Your task to perform on an android device: Clear the cart on bestbuy.com. Add dell xps to the cart on bestbuy.com, then select checkout. Image 0: 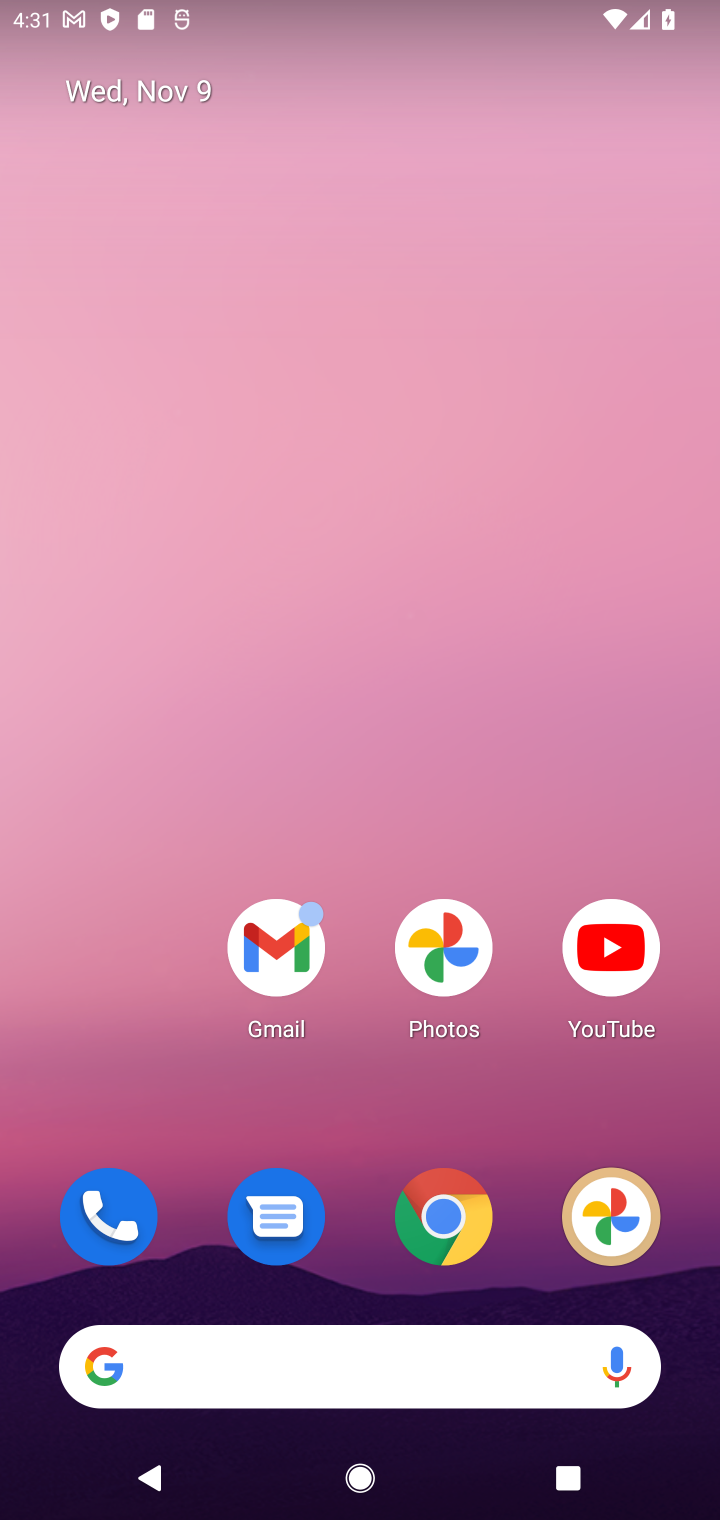
Step 0: drag from (367, 1131) to (500, 176)
Your task to perform on an android device: Clear the cart on bestbuy.com. Add dell xps to the cart on bestbuy.com, then select checkout. Image 1: 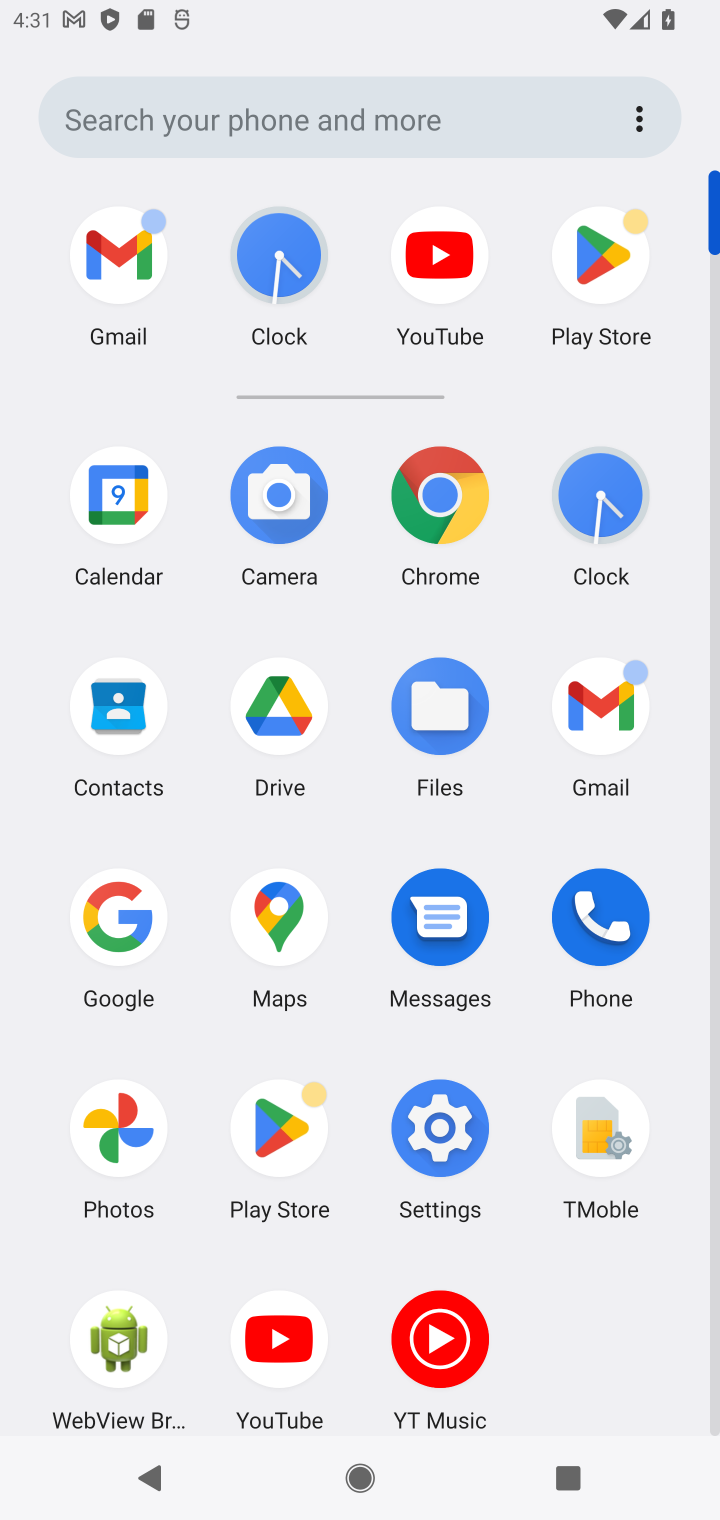
Step 1: click (443, 484)
Your task to perform on an android device: Clear the cart on bestbuy.com. Add dell xps to the cart on bestbuy.com, then select checkout. Image 2: 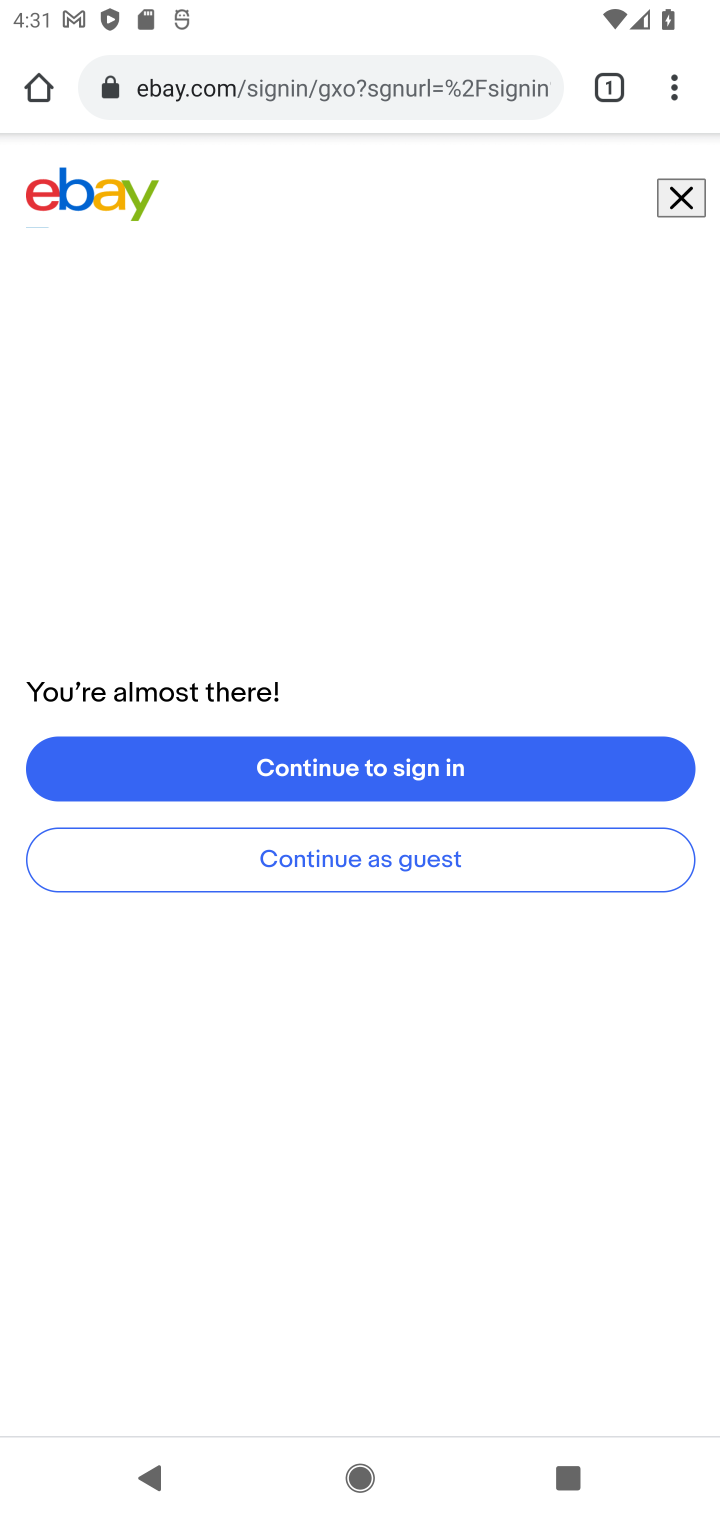
Step 2: click (367, 98)
Your task to perform on an android device: Clear the cart on bestbuy.com. Add dell xps to the cart on bestbuy.com, then select checkout. Image 3: 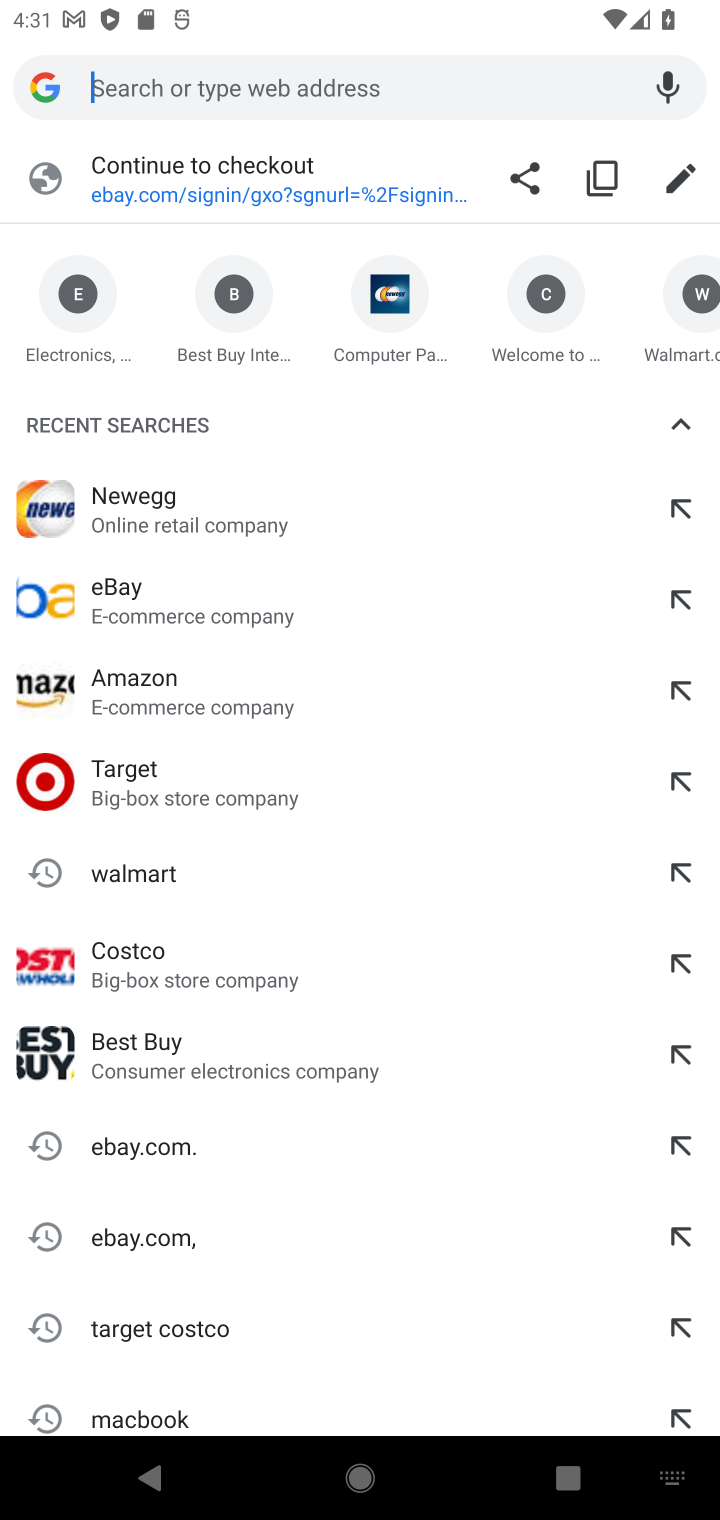
Step 3: type "bestbuy.com"
Your task to perform on an android device: Clear the cart on bestbuy.com. Add dell xps to the cart on bestbuy.com, then select checkout. Image 4: 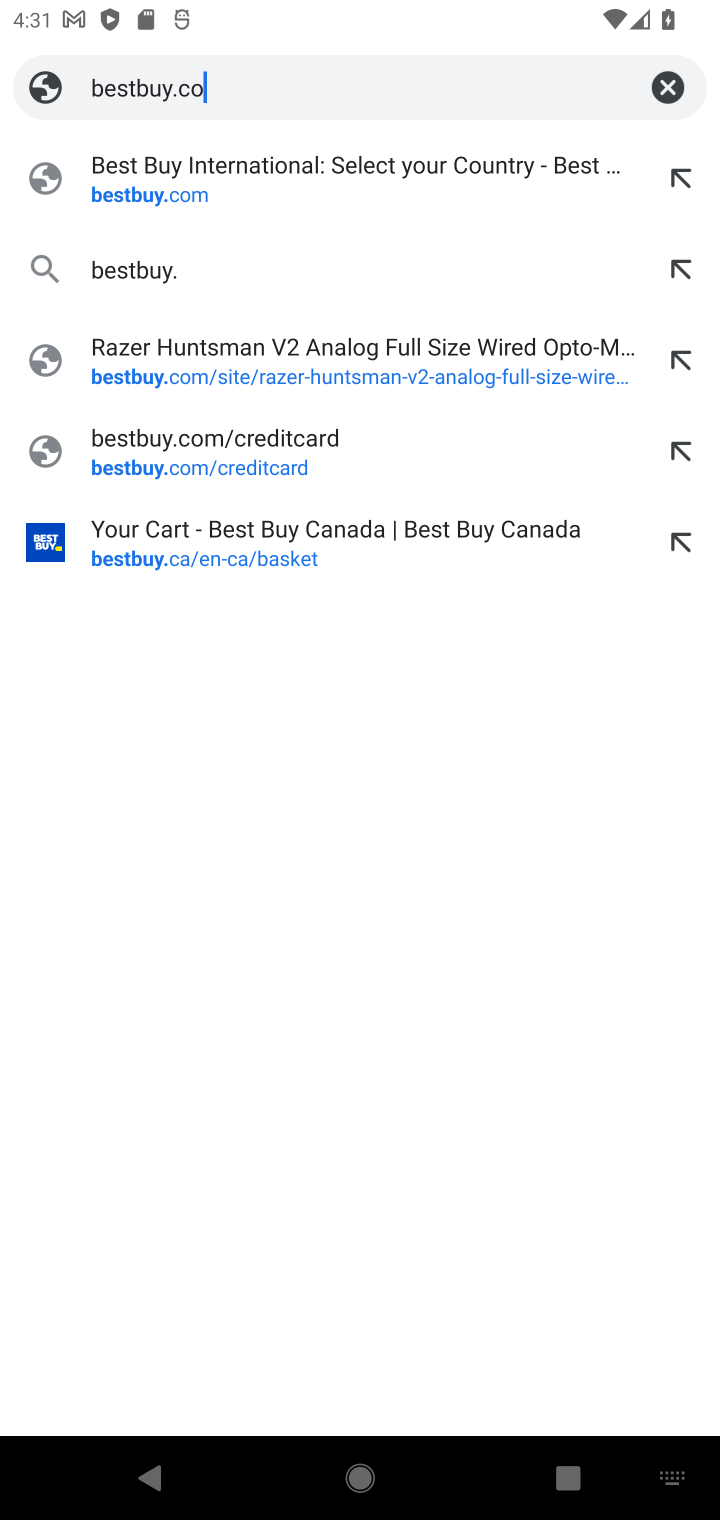
Step 4: press enter
Your task to perform on an android device: Clear the cart on bestbuy.com. Add dell xps to the cart on bestbuy.com, then select checkout. Image 5: 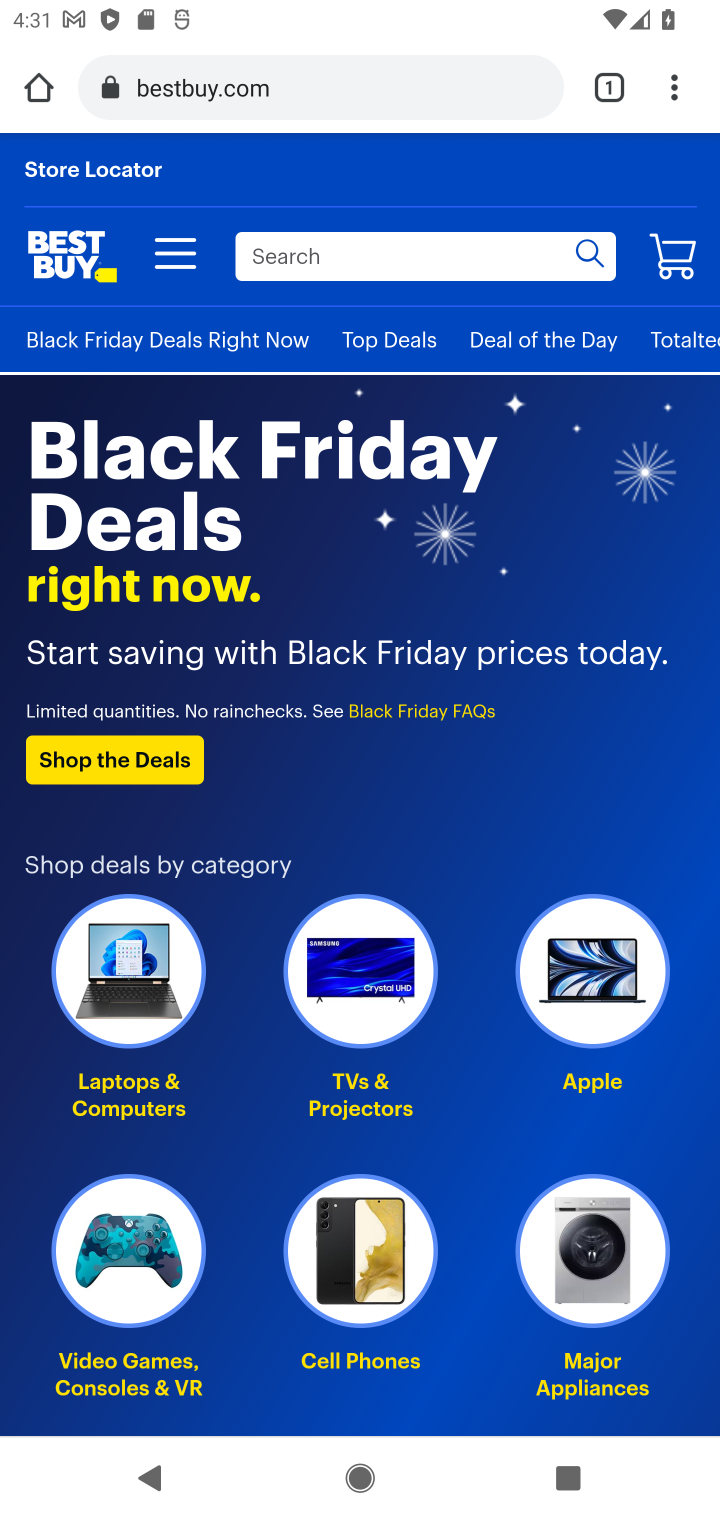
Step 5: click (393, 255)
Your task to perform on an android device: Clear the cart on bestbuy.com. Add dell xps to the cart on bestbuy.com, then select checkout. Image 6: 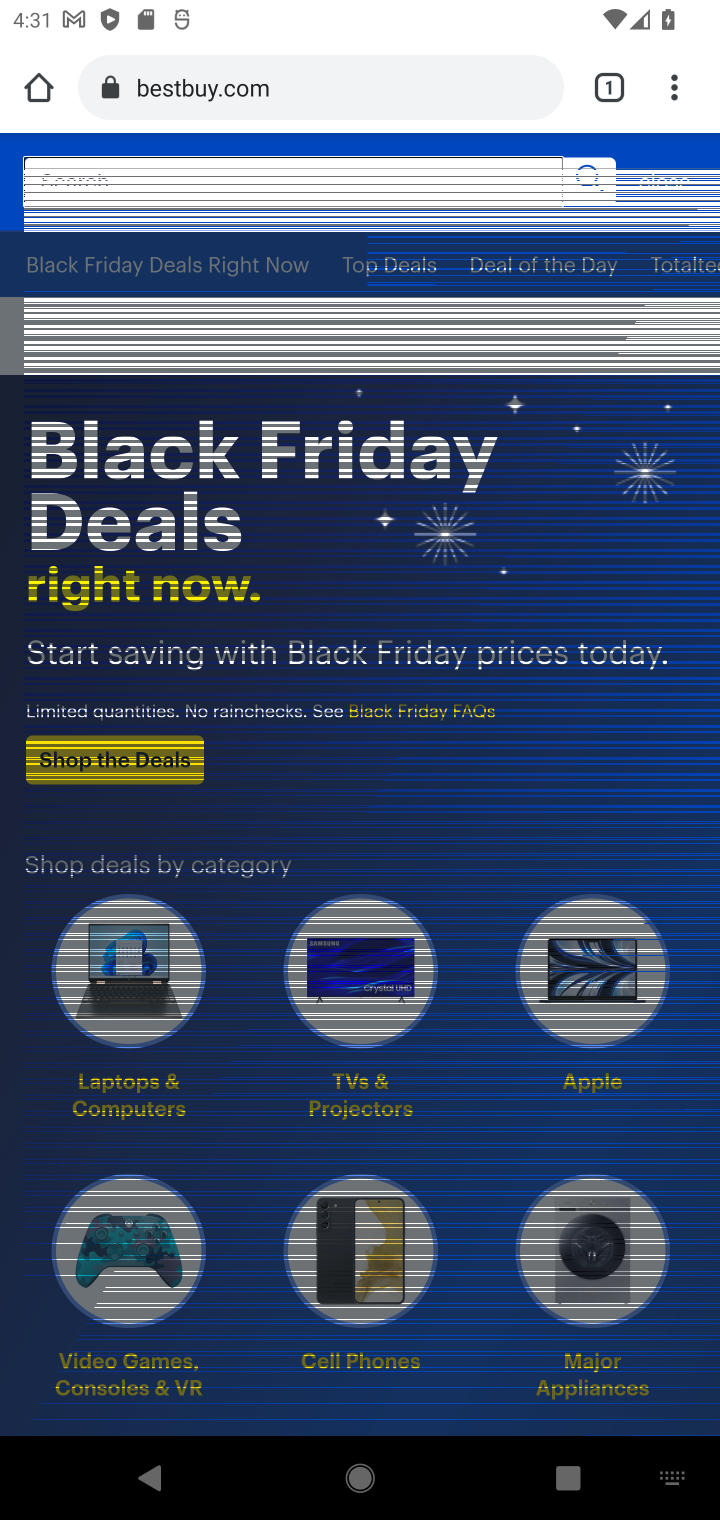
Step 6: click (653, 171)
Your task to perform on an android device: Clear the cart on bestbuy.com. Add dell xps to the cart on bestbuy.com, then select checkout. Image 7: 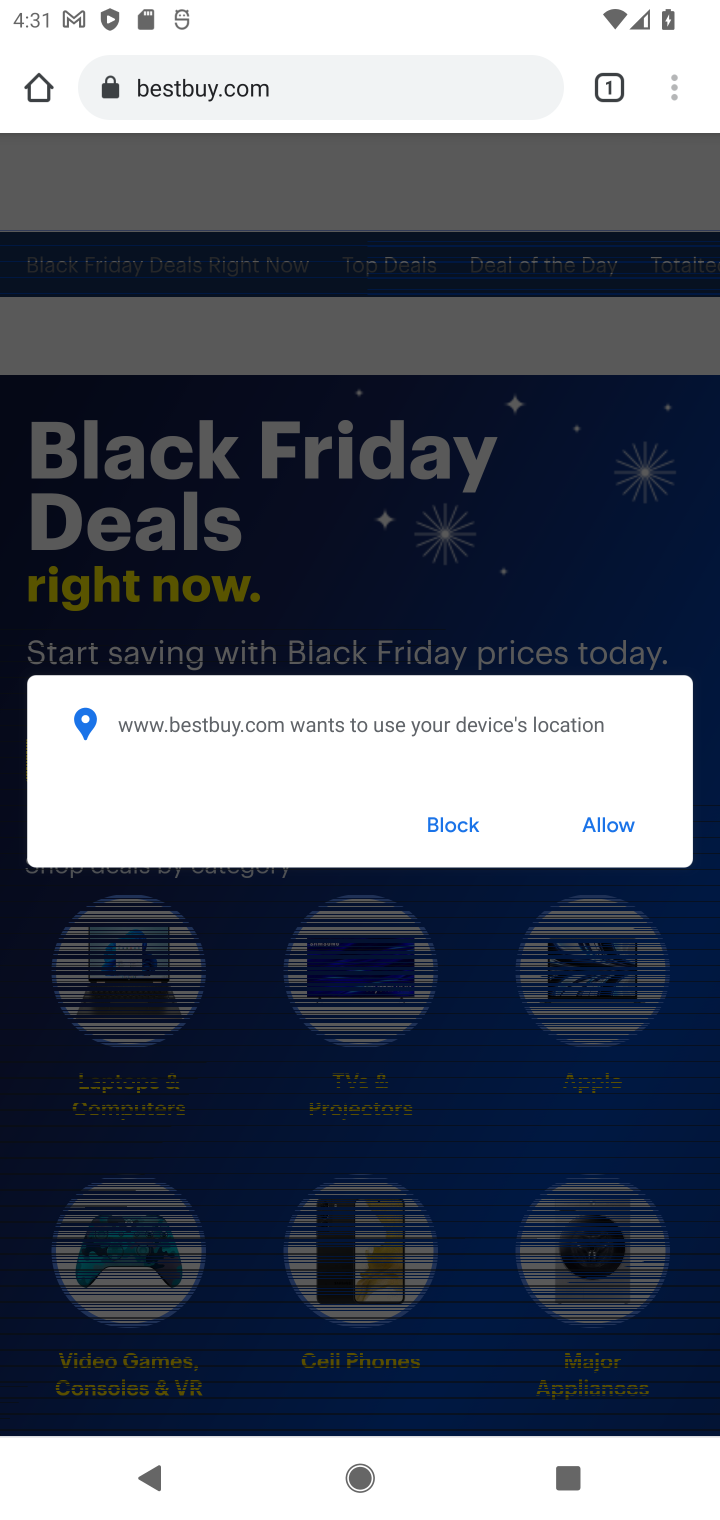
Step 7: click (474, 824)
Your task to perform on an android device: Clear the cart on bestbuy.com. Add dell xps to the cart on bestbuy.com, then select checkout. Image 8: 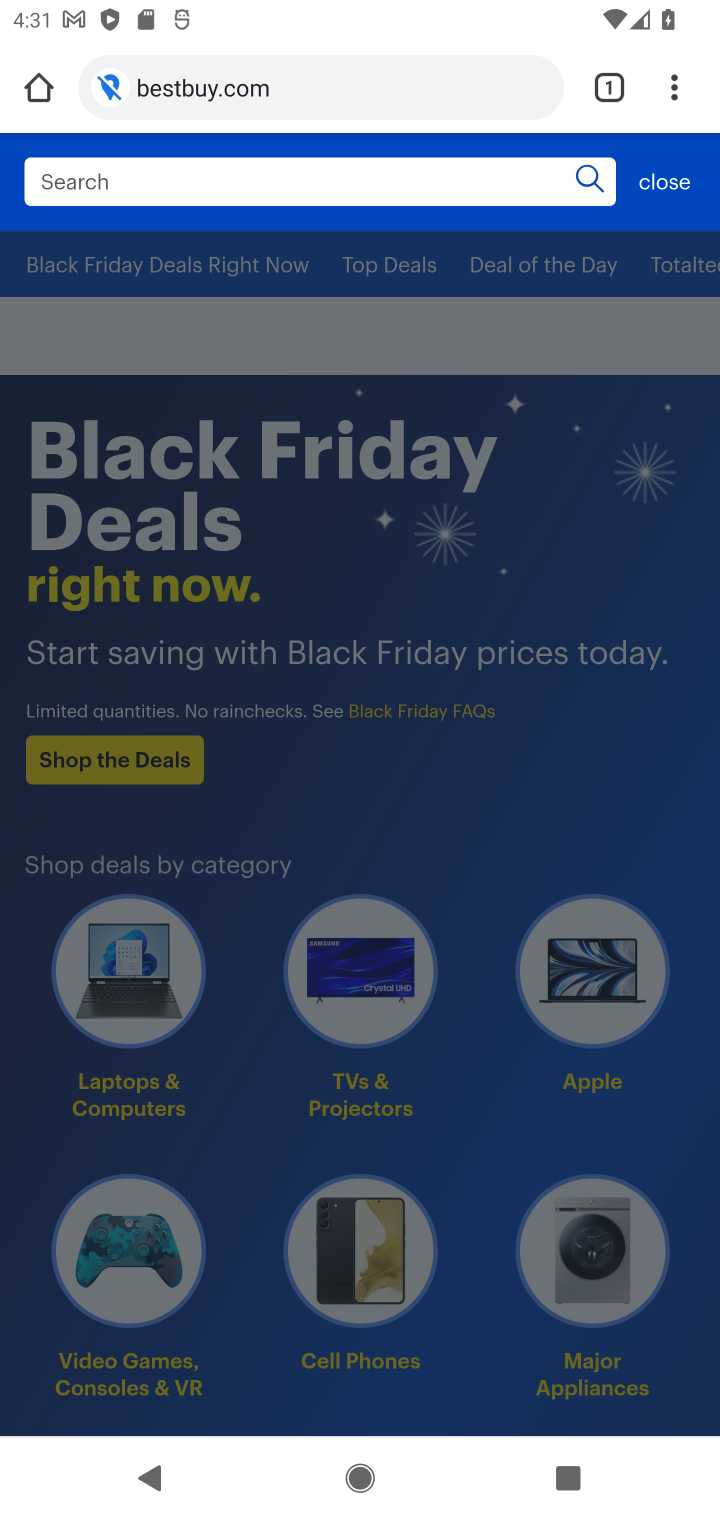
Step 8: click (677, 182)
Your task to perform on an android device: Clear the cart on bestbuy.com. Add dell xps to the cart on bestbuy.com, then select checkout. Image 9: 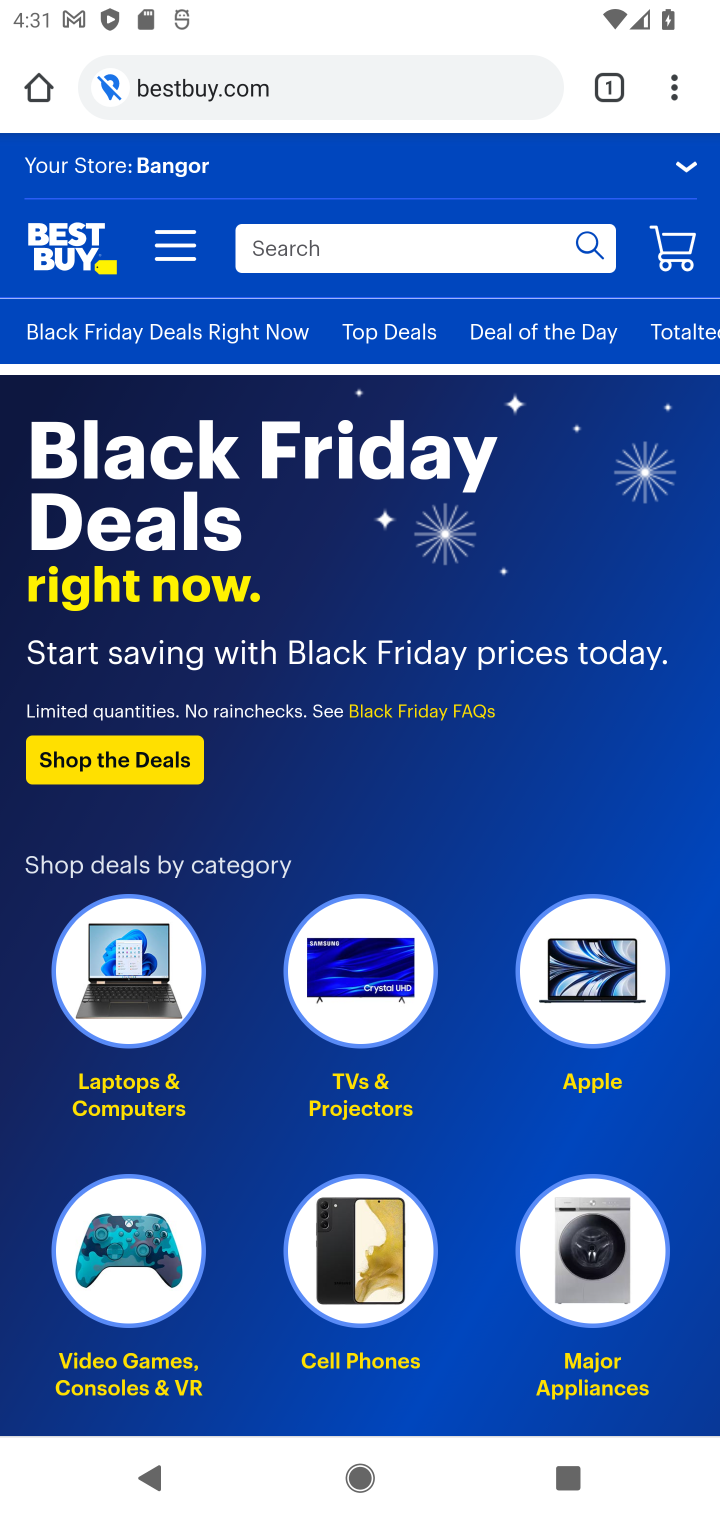
Step 9: click (680, 251)
Your task to perform on an android device: Clear the cart on bestbuy.com. Add dell xps to the cart on bestbuy.com, then select checkout. Image 10: 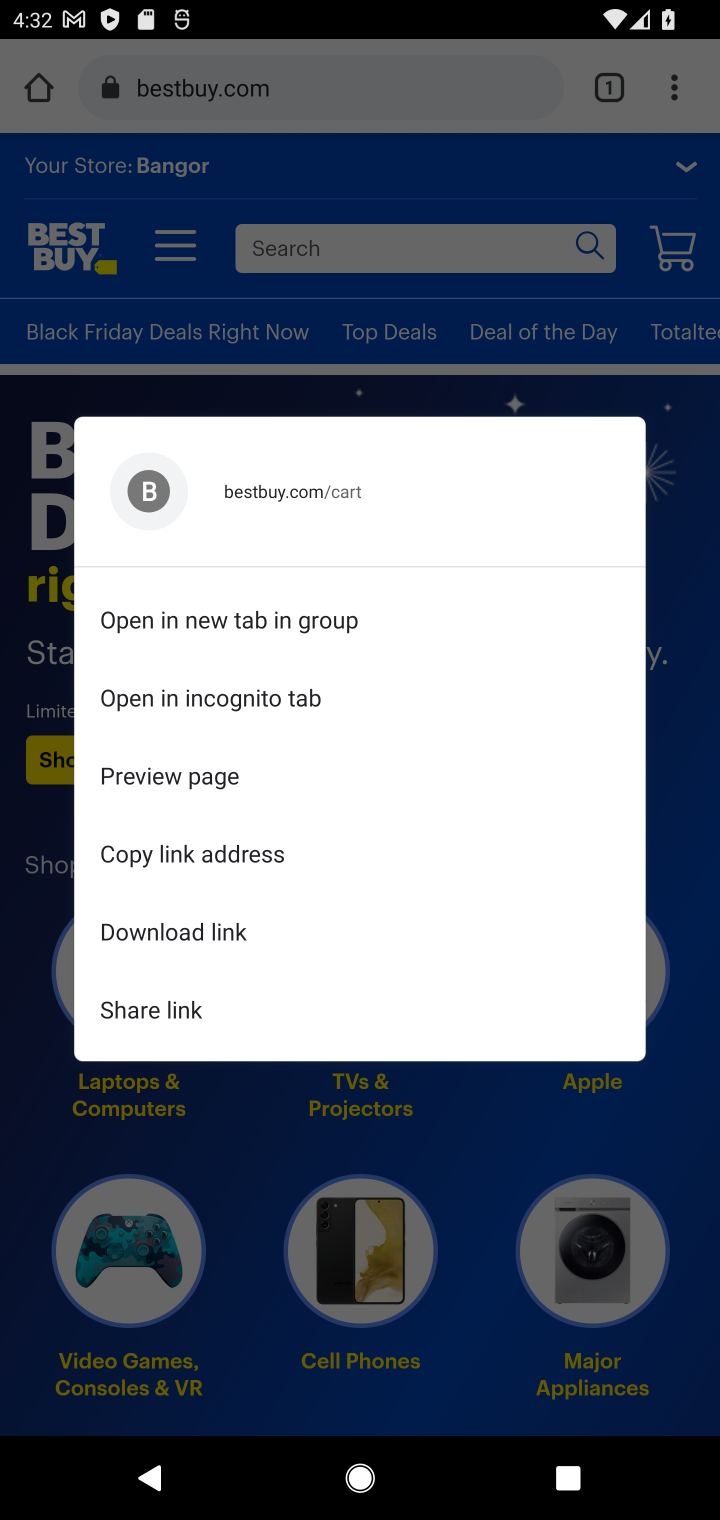
Step 10: click (680, 251)
Your task to perform on an android device: Clear the cart on bestbuy.com. Add dell xps to the cart on bestbuy.com, then select checkout. Image 11: 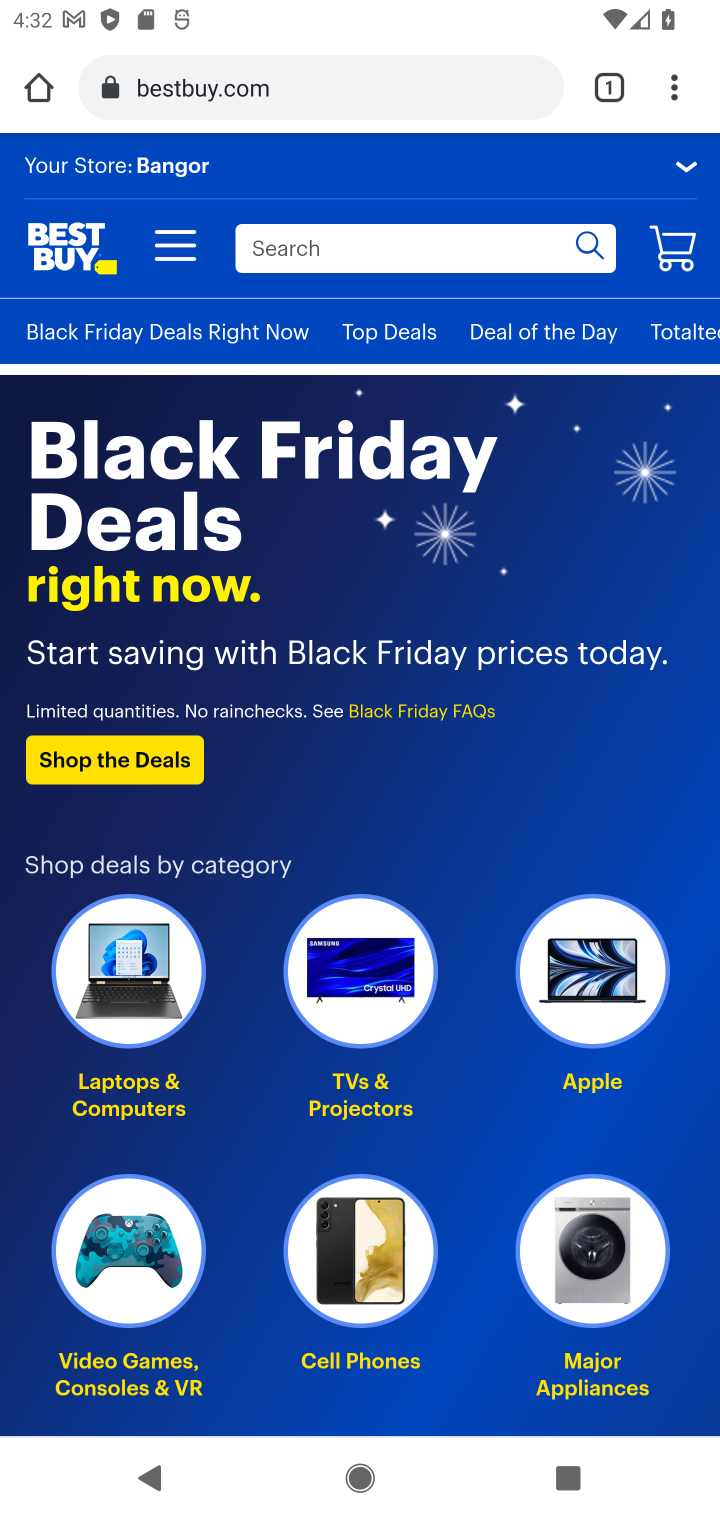
Step 11: click (680, 251)
Your task to perform on an android device: Clear the cart on bestbuy.com. Add dell xps to the cart on bestbuy.com, then select checkout. Image 12: 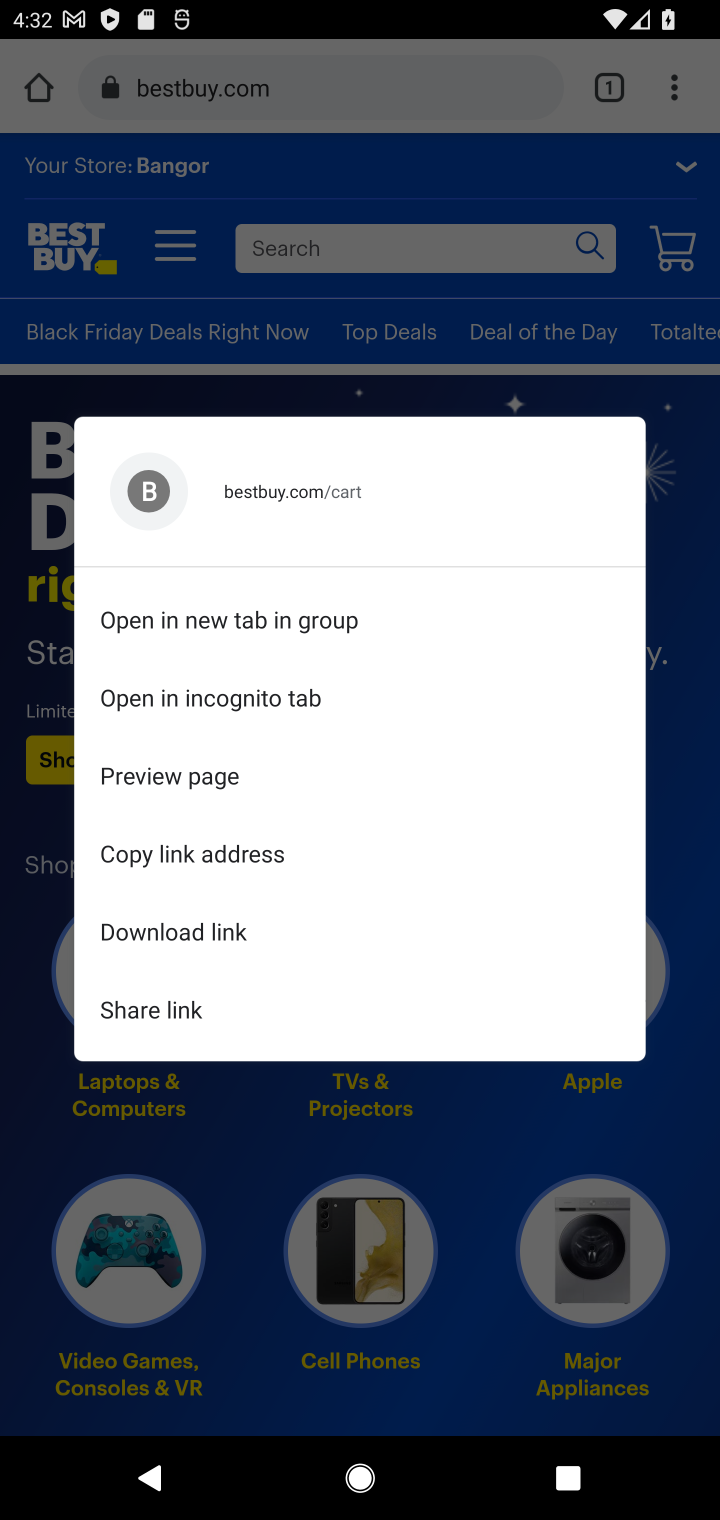
Step 12: click (680, 251)
Your task to perform on an android device: Clear the cart on bestbuy.com. Add dell xps to the cart on bestbuy.com, then select checkout. Image 13: 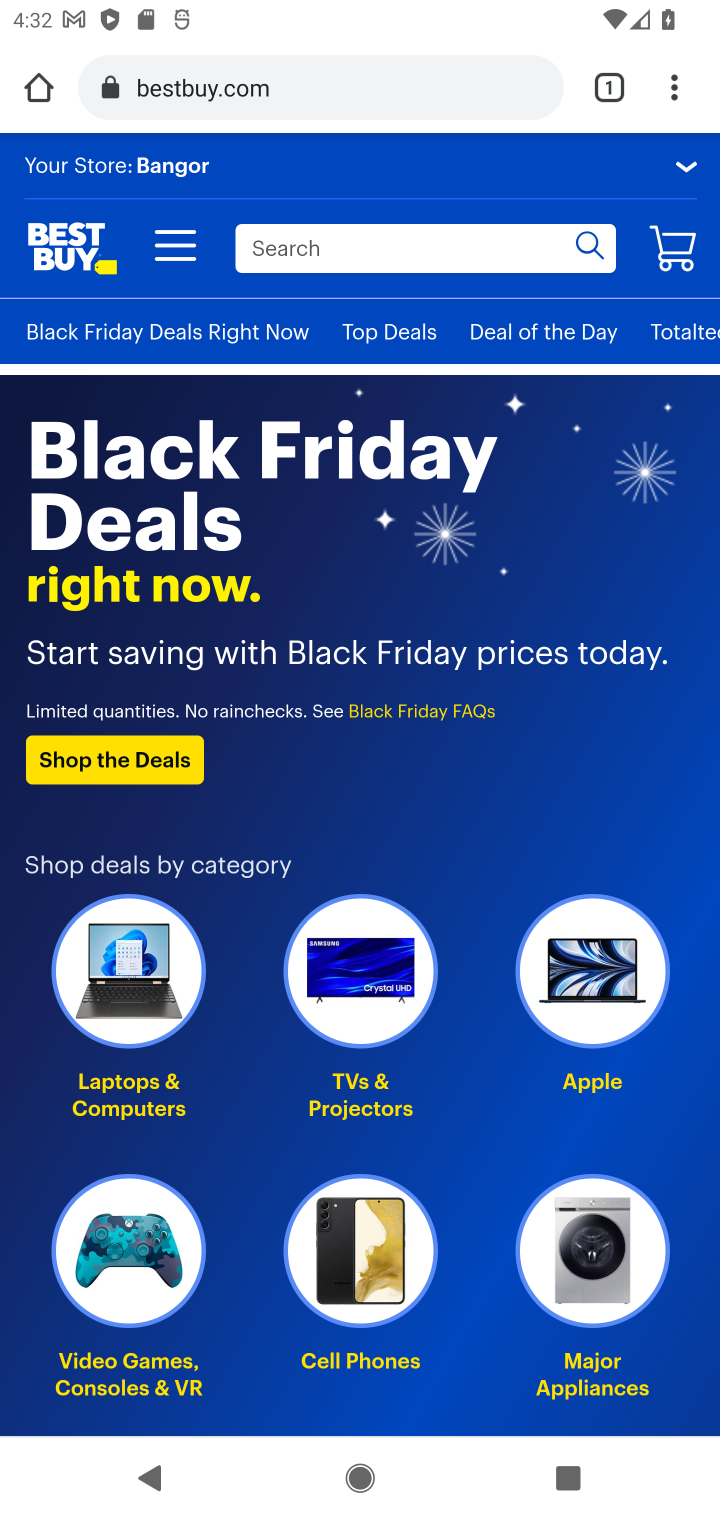
Step 13: click (682, 273)
Your task to perform on an android device: Clear the cart on bestbuy.com. Add dell xps to the cart on bestbuy.com, then select checkout. Image 14: 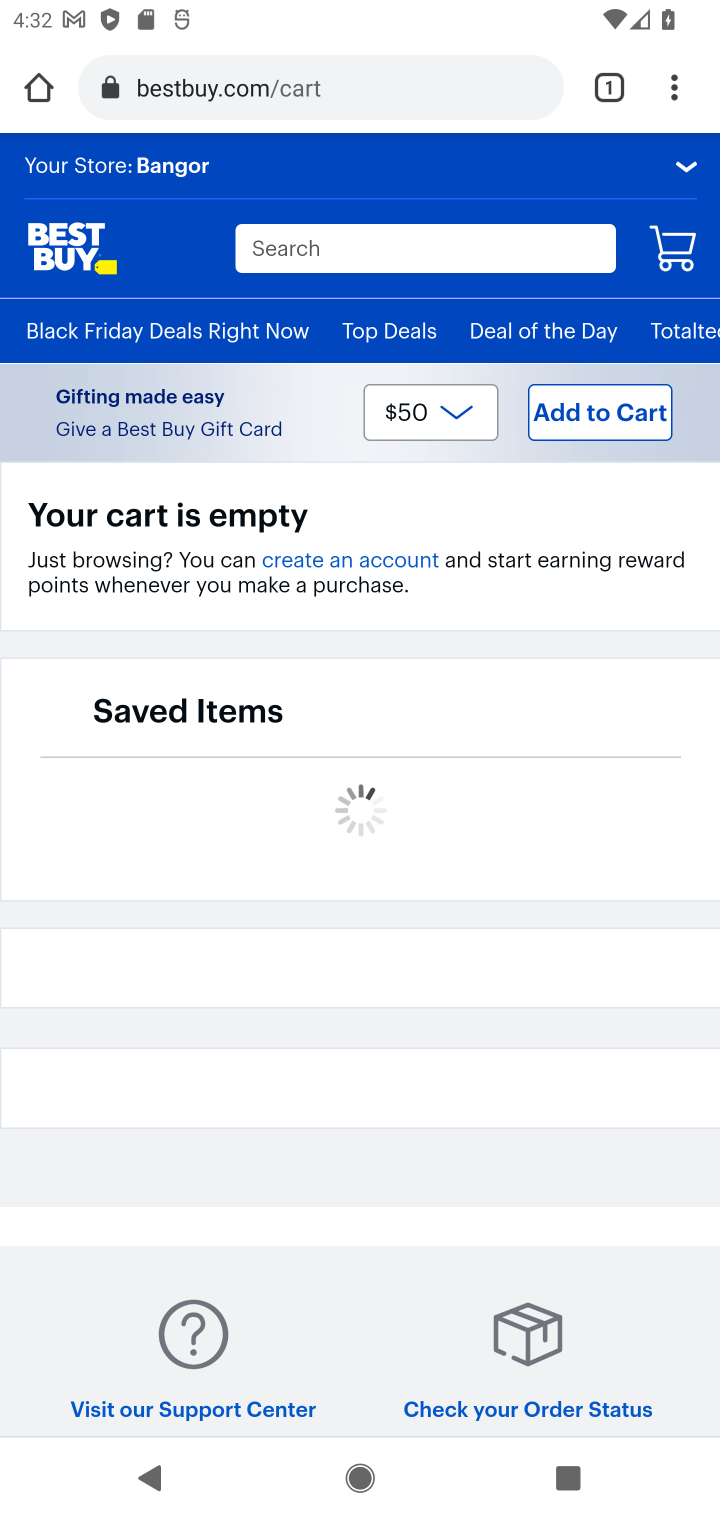
Step 14: click (509, 253)
Your task to perform on an android device: Clear the cart on bestbuy.com. Add dell xps to the cart on bestbuy.com, then select checkout. Image 15: 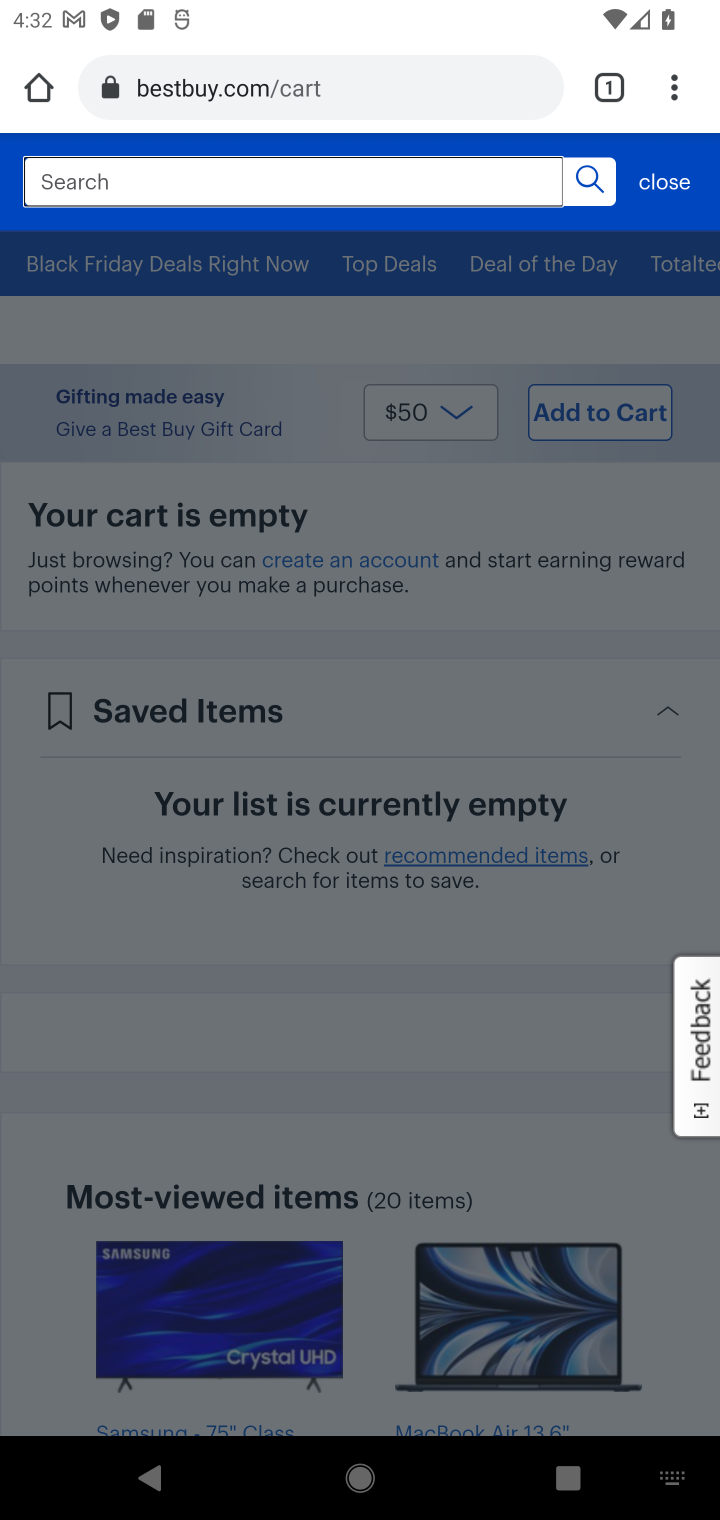
Step 15: type "dell xps"
Your task to perform on an android device: Clear the cart on bestbuy.com. Add dell xps to the cart on bestbuy.com, then select checkout. Image 16: 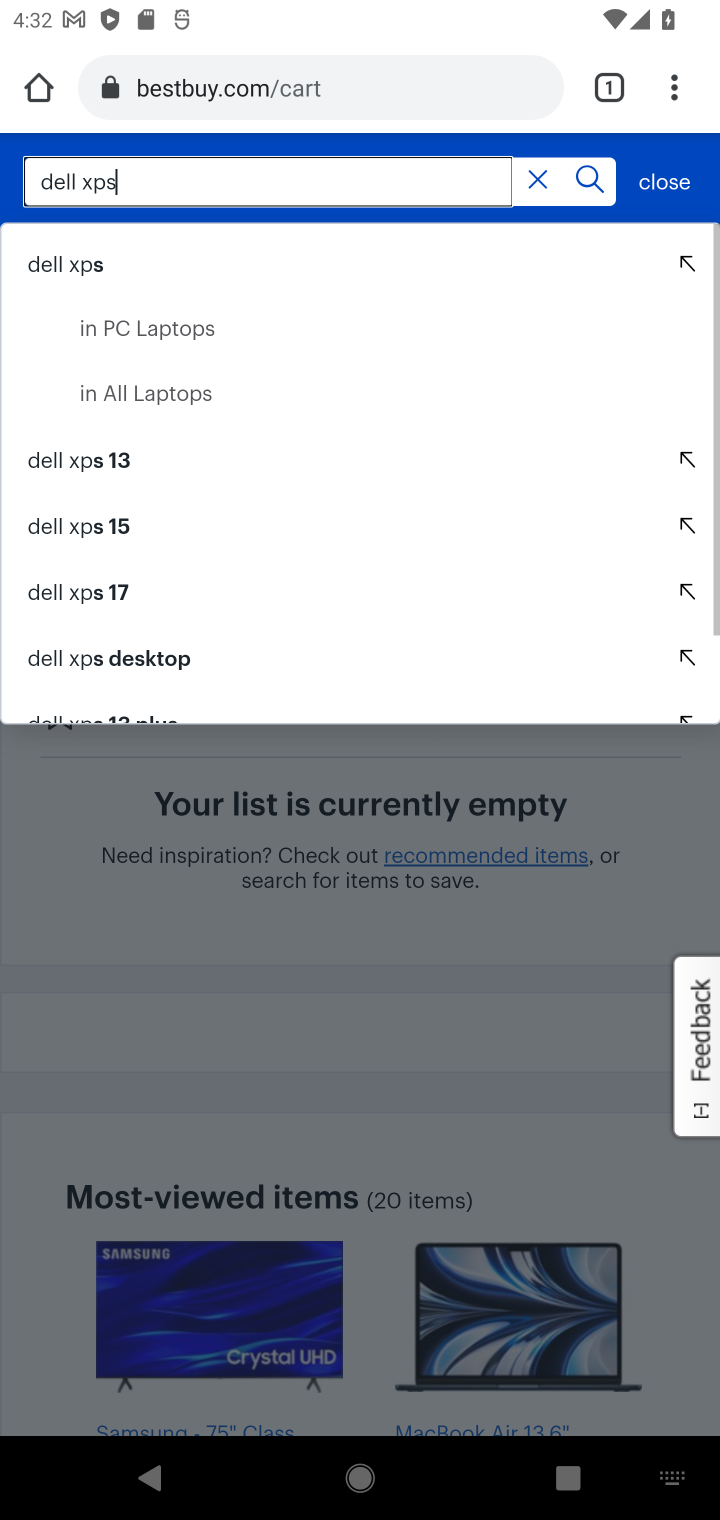
Step 16: press enter
Your task to perform on an android device: Clear the cart on bestbuy.com. Add dell xps to the cart on bestbuy.com, then select checkout. Image 17: 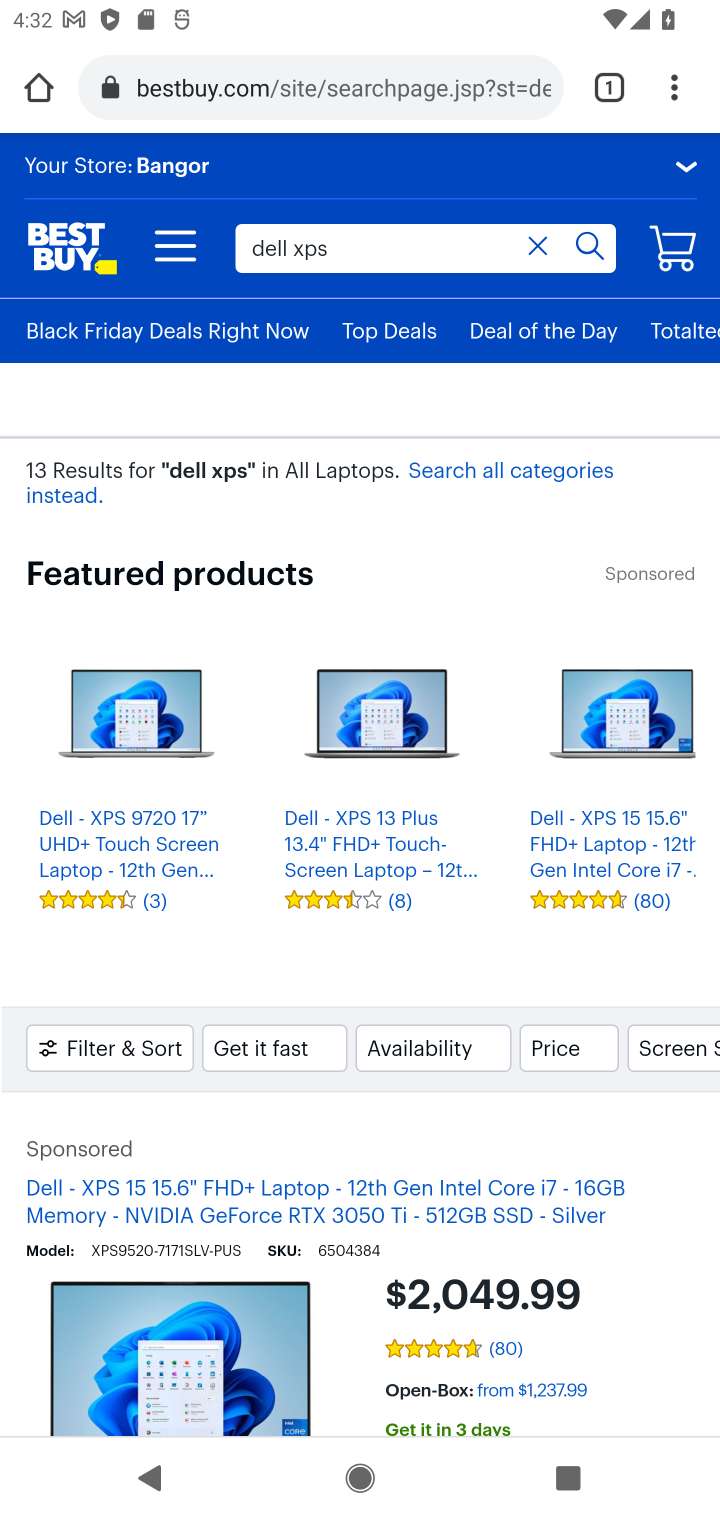
Step 17: drag from (543, 1237) to (553, 477)
Your task to perform on an android device: Clear the cart on bestbuy.com. Add dell xps to the cart on bestbuy.com, then select checkout. Image 18: 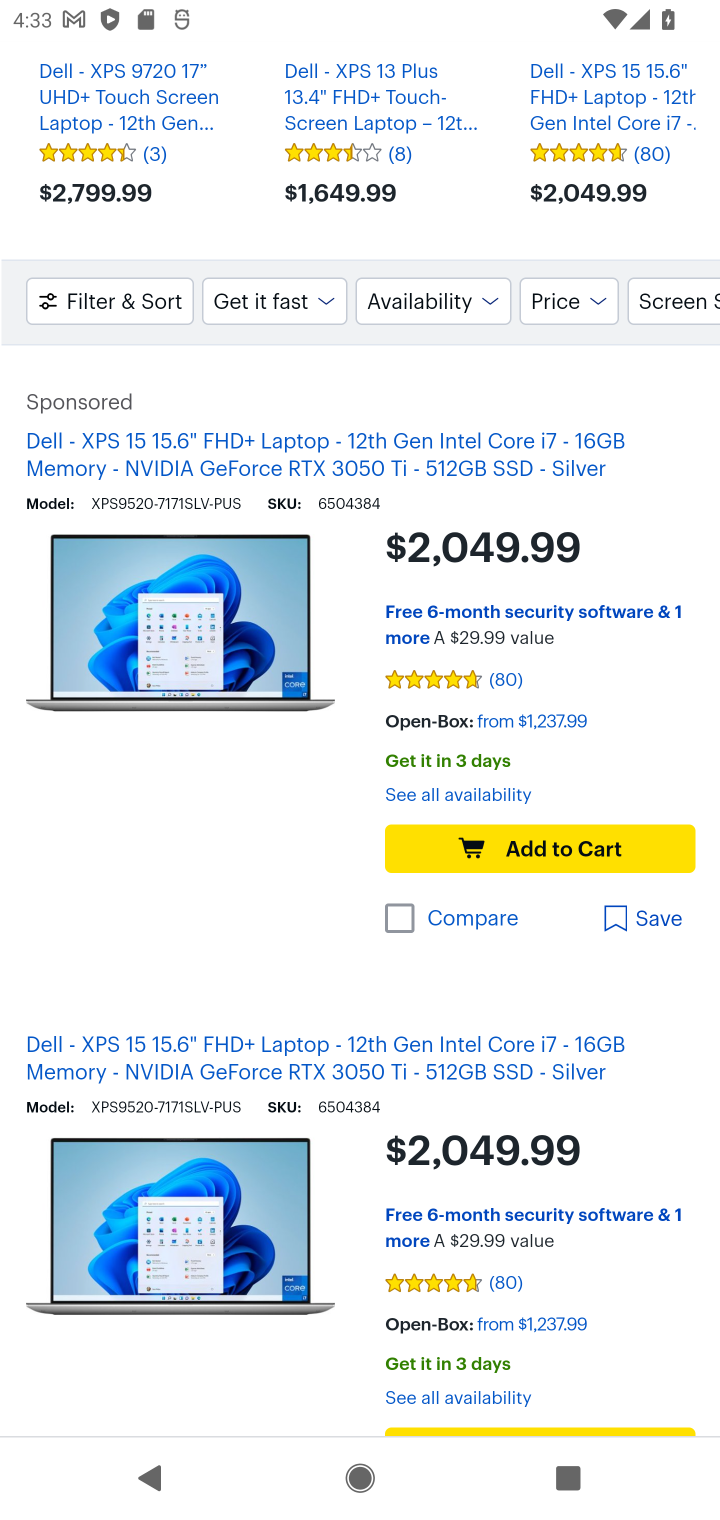
Step 18: drag from (548, 1341) to (557, 877)
Your task to perform on an android device: Clear the cart on bestbuy.com. Add dell xps to the cart on bestbuy.com, then select checkout. Image 19: 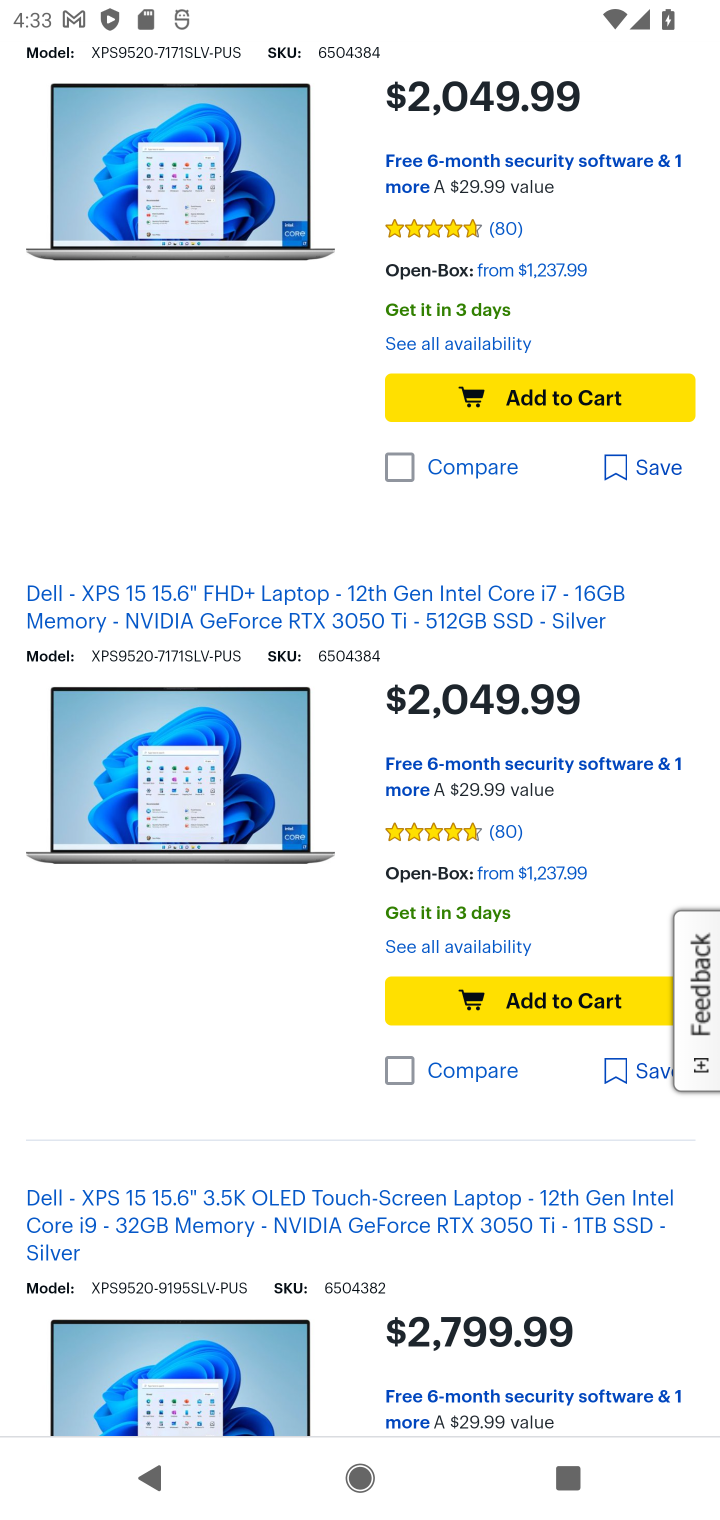
Step 19: click (584, 1006)
Your task to perform on an android device: Clear the cart on bestbuy.com. Add dell xps to the cart on bestbuy.com, then select checkout. Image 20: 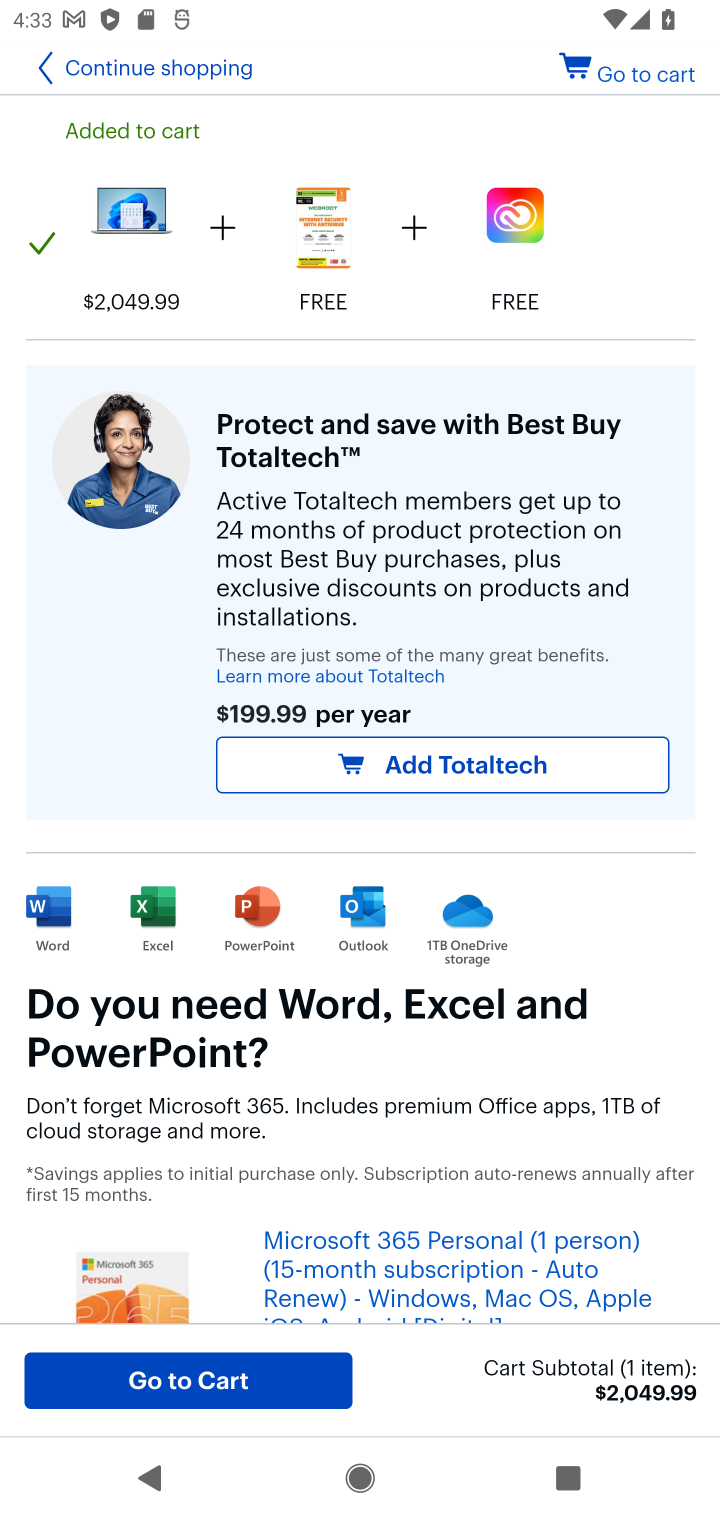
Step 20: click (196, 1377)
Your task to perform on an android device: Clear the cart on bestbuy.com. Add dell xps to the cart on bestbuy.com, then select checkout. Image 21: 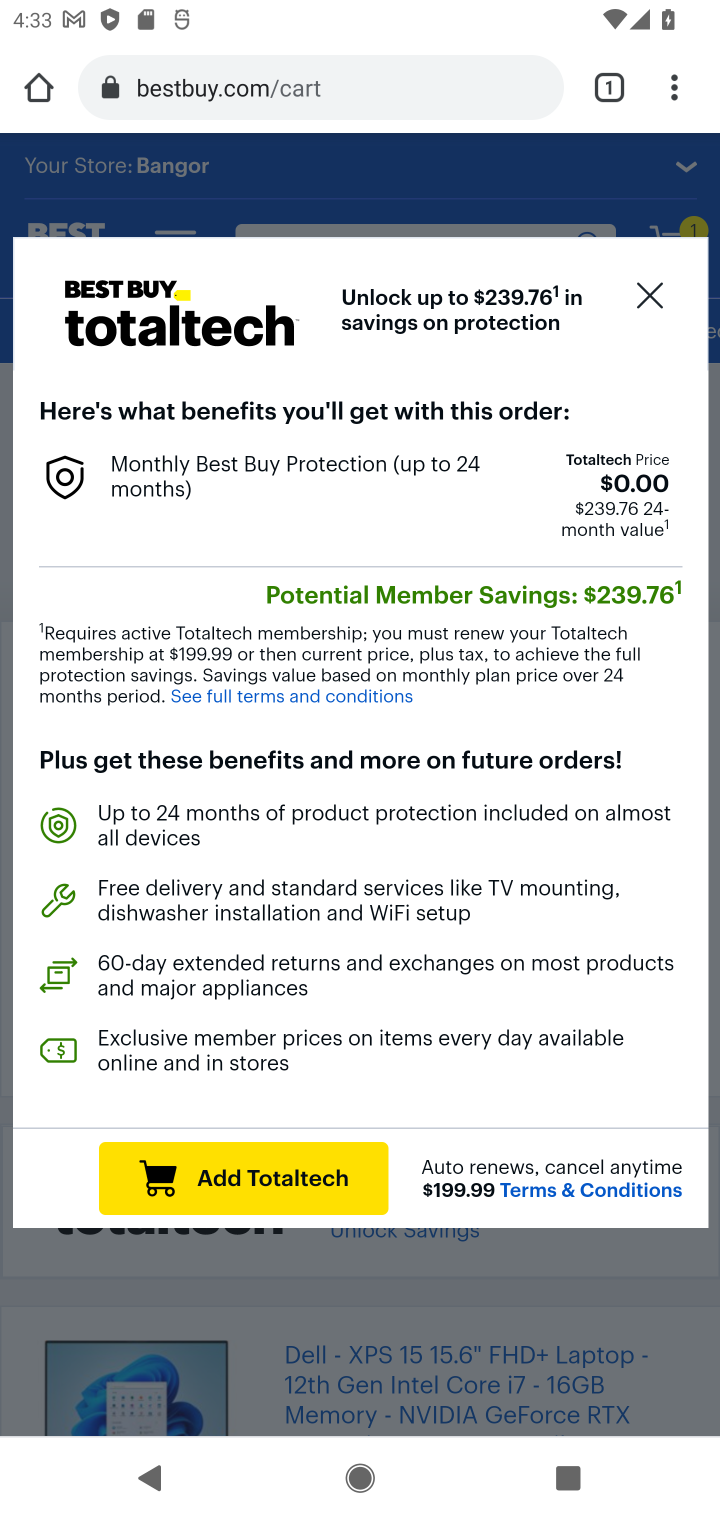
Step 21: click (638, 288)
Your task to perform on an android device: Clear the cart on bestbuy.com. Add dell xps to the cart on bestbuy.com, then select checkout. Image 22: 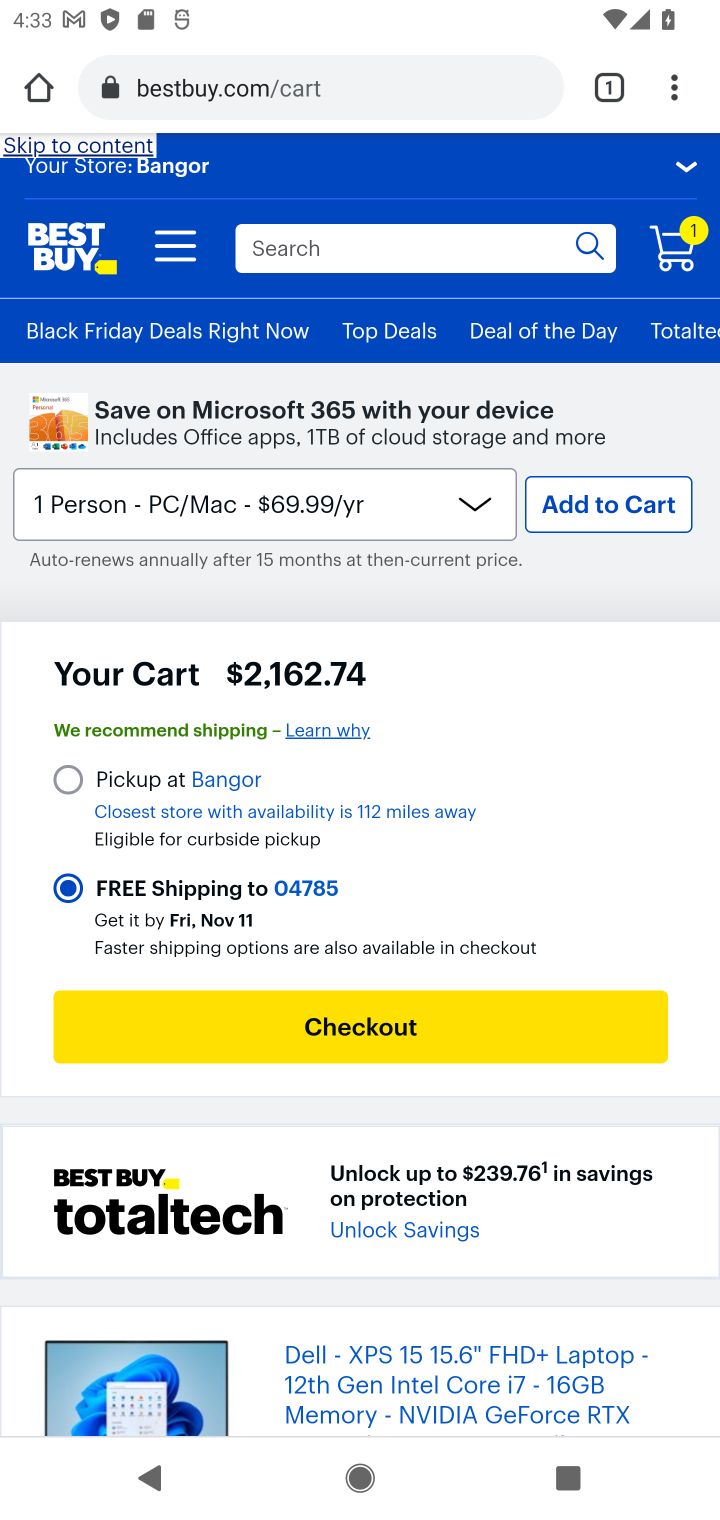
Step 22: click (368, 1017)
Your task to perform on an android device: Clear the cart on bestbuy.com. Add dell xps to the cart on bestbuy.com, then select checkout. Image 23: 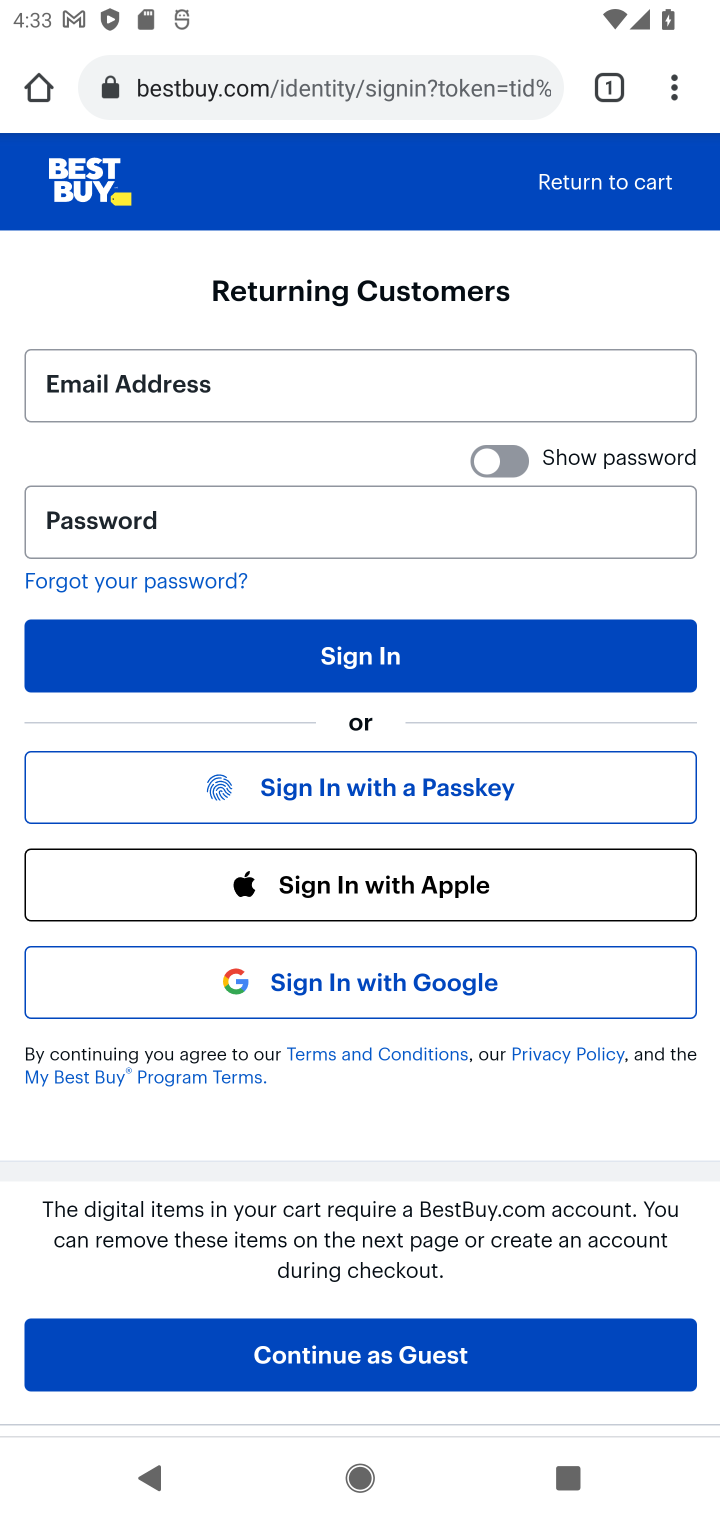
Step 23: task complete